Your task to perform on an android device: Open sound settings Image 0: 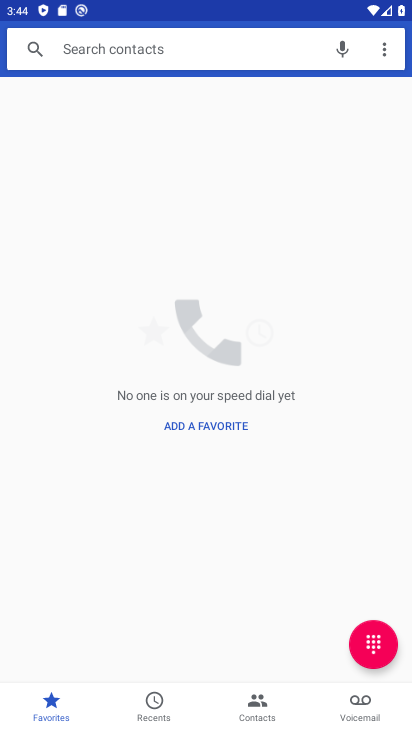
Step 0: press back button
Your task to perform on an android device: Open sound settings Image 1: 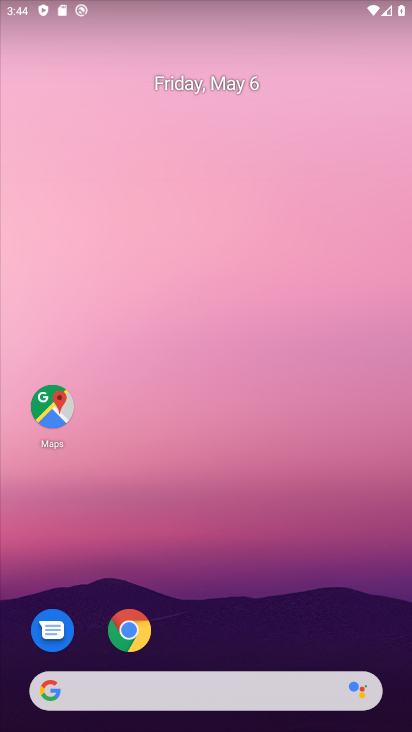
Step 1: drag from (195, 673) to (339, 110)
Your task to perform on an android device: Open sound settings Image 2: 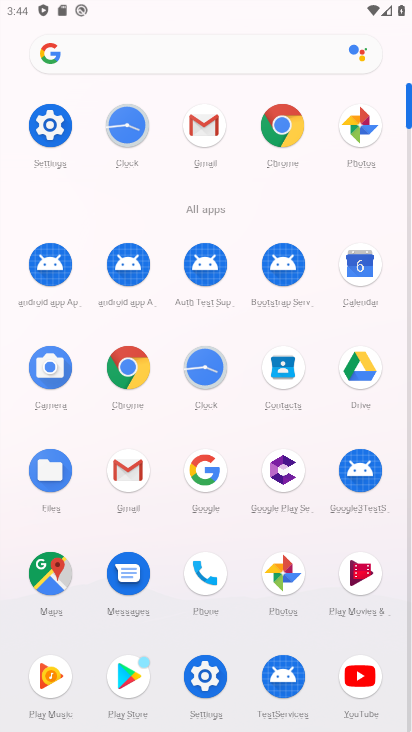
Step 2: click (62, 135)
Your task to perform on an android device: Open sound settings Image 3: 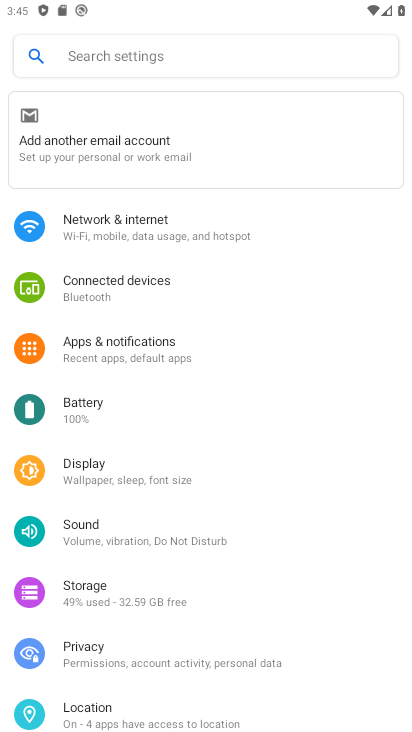
Step 3: click (134, 540)
Your task to perform on an android device: Open sound settings Image 4: 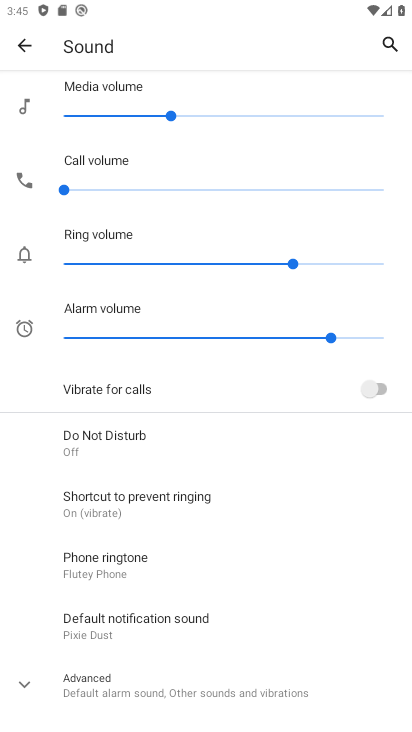
Step 4: task complete